Your task to perform on an android device: manage bookmarks in the chrome app Image 0: 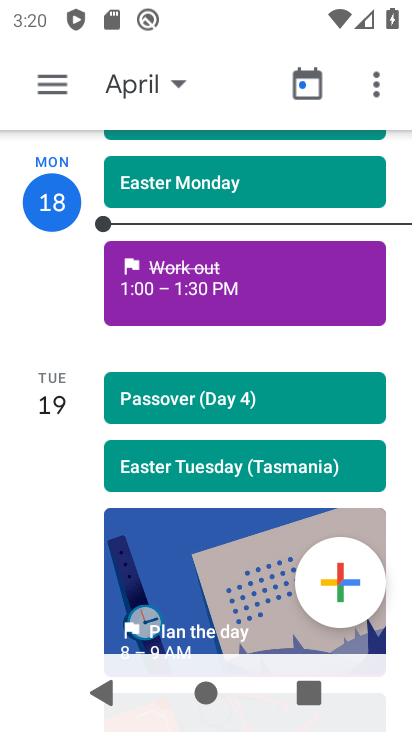
Step 0: press back button
Your task to perform on an android device: manage bookmarks in the chrome app Image 1: 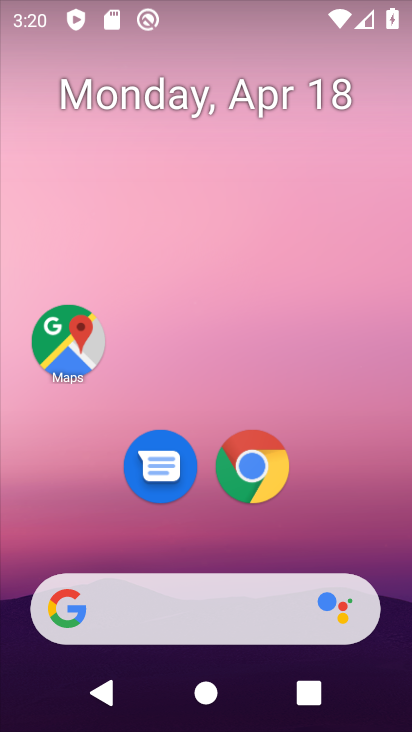
Step 1: click (254, 474)
Your task to perform on an android device: manage bookmarks in the chrome app Image 2: 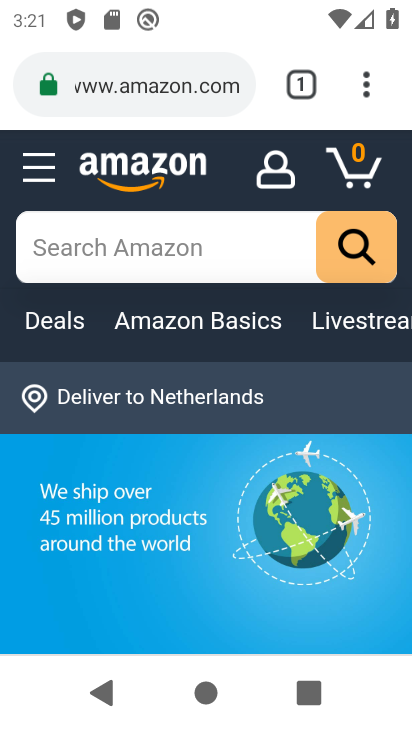
Step 2: click (367, 100)
Your task to perform on an android device: manage bookmarks in the chrome app Image 3: 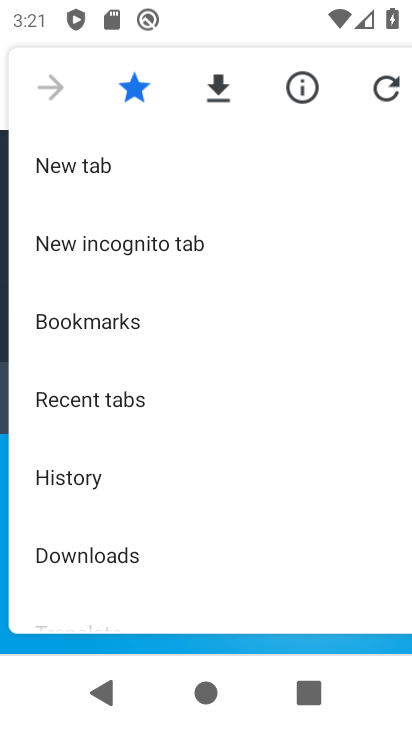
Step 3: click (177, 303)
Your task to perform on an android device: manage bookmarks in the chrome app Image 4: 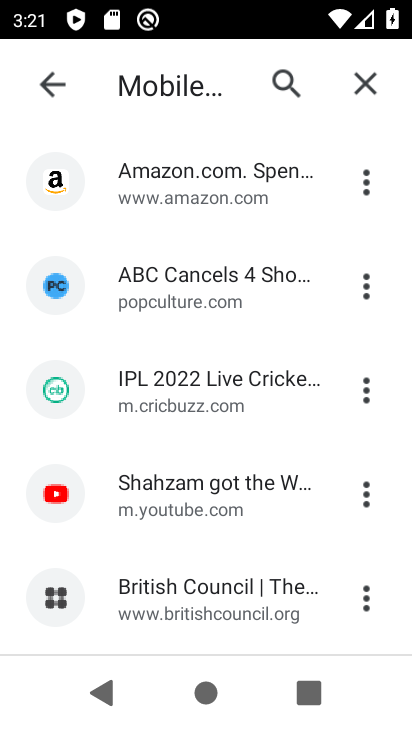
Step 4: click (359, 283)
Your task to perform on an android device: manage bookmarks in the chrome app Image 5: 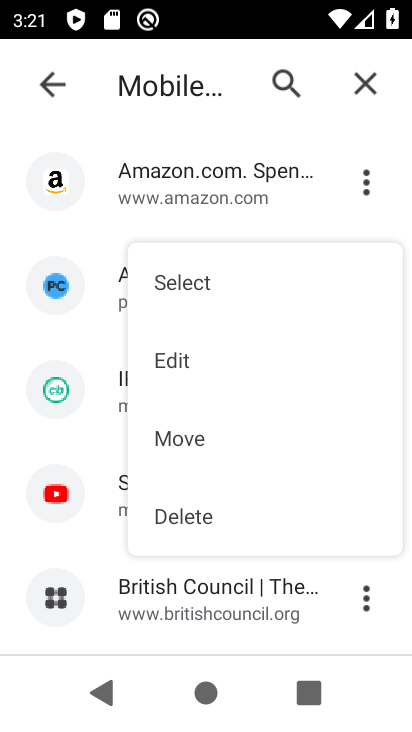
Step 5: click (203, 511)
Your task to perform on an android device: manage bookmarks in the chrome app Image 6: 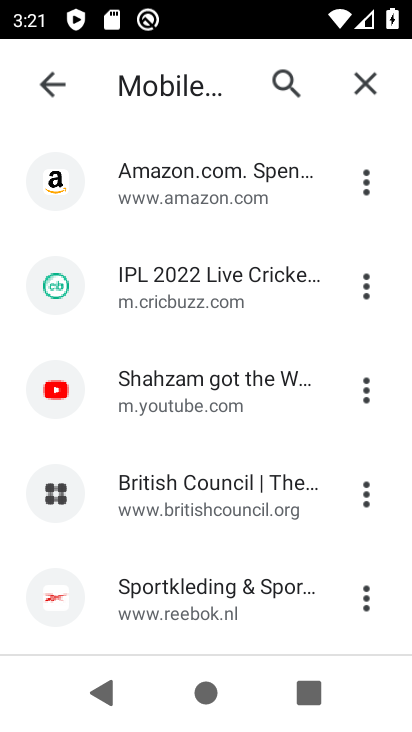
Step 6: task complete